Your task to perform on an android device: Go to notification settings Image 0: 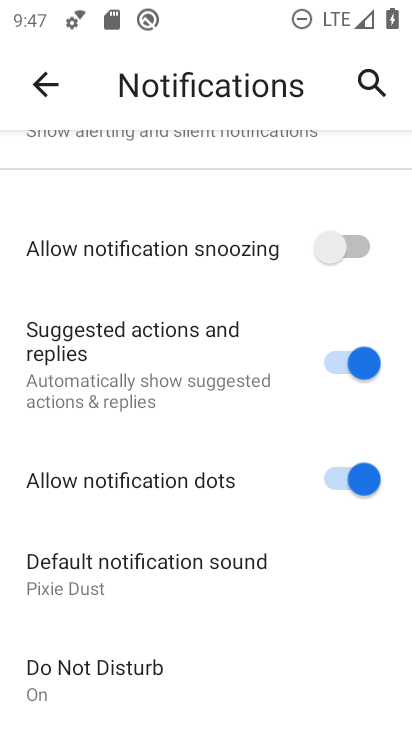
Step 0: press home button
Your task to perform on an android device: Go to notification settings Image 1: 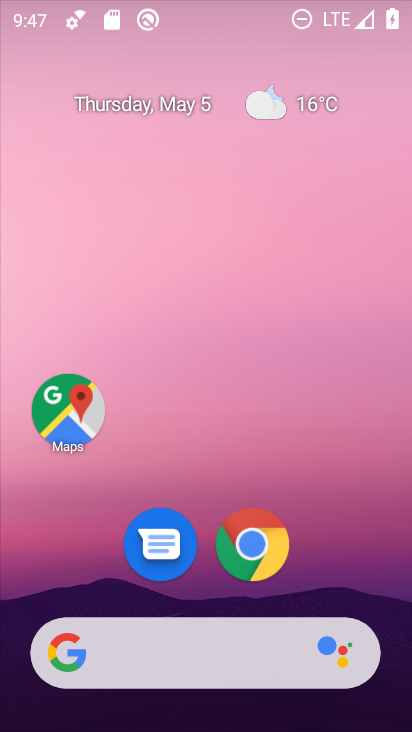
Step 1: drag from (392, 657) to (244, 47)
Your task to perform on an android device: Go to notification settings Image 2: 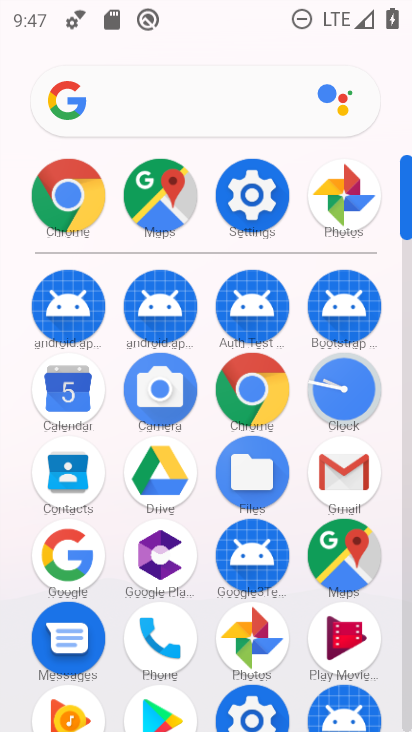
Step 2: click (263, 197)
Your task to perform on an android device: Go to notification settings Image 3: 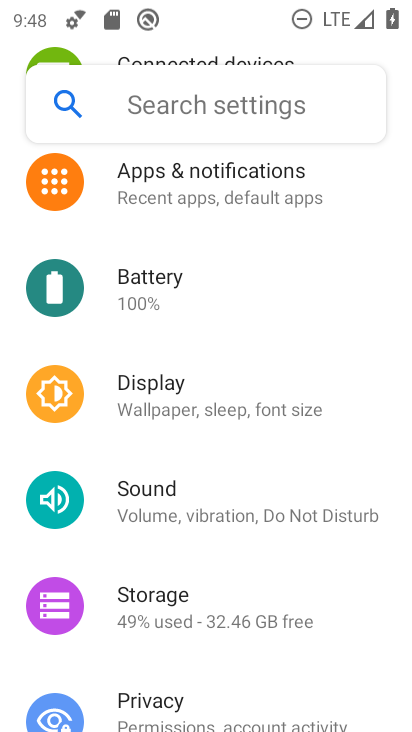
Step 3: click (263, 197)
Your task to perform on an android device: Go to notification settings Image 4: 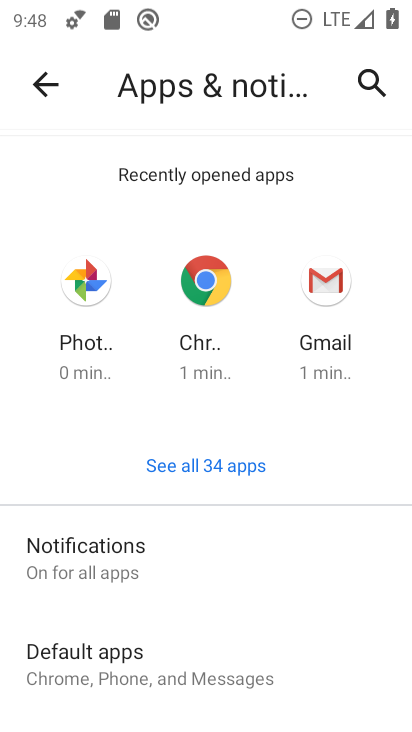
Step 4: click (232, 547)
Your task to perform on an android device: Go to notification settings Image 5: 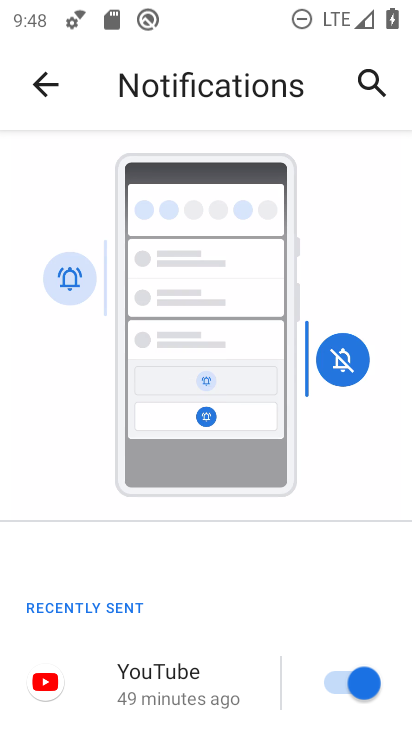
Step 5: task complete